Your task to perform on an android device: manage bookmarks in the chrome app Image 0: 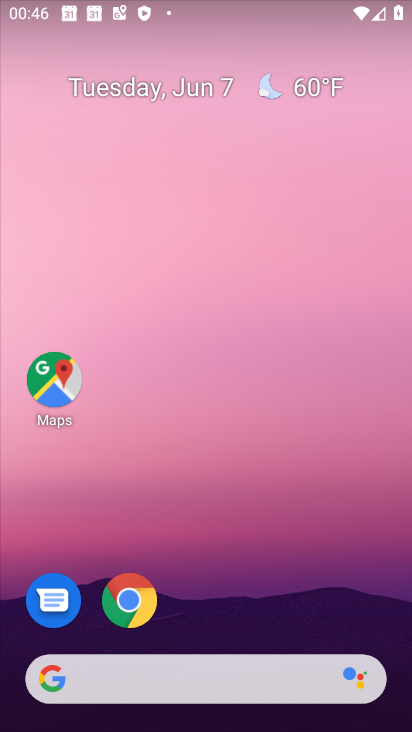
Step 0: click (133, 602)
Your task to perform on an android device: manage bookmarks in the chrome app Image 1: 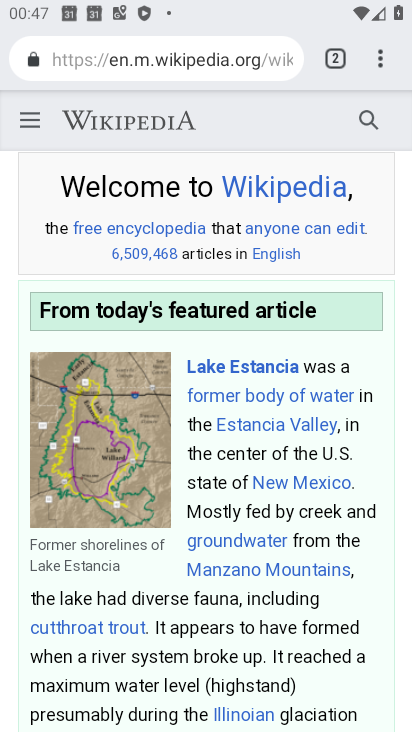
Step 1: click (378, 60)
Your task to perform on an android device: manage bookmarks in the chrome app Image 2: 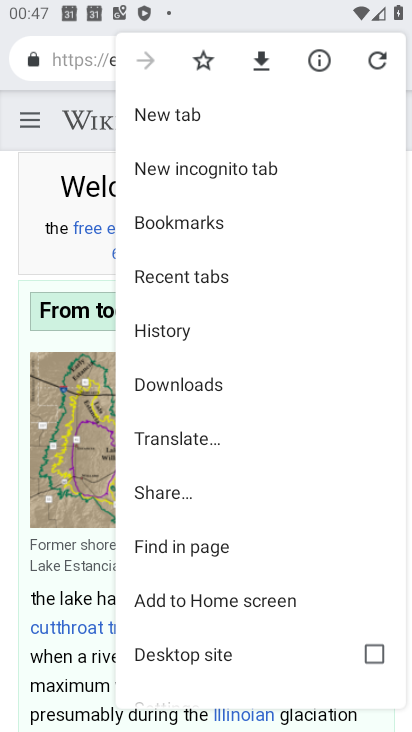
Step 2: click (166, 220)
Your task to perform on an android device: manage bookmarks in the chrome app Image 3: 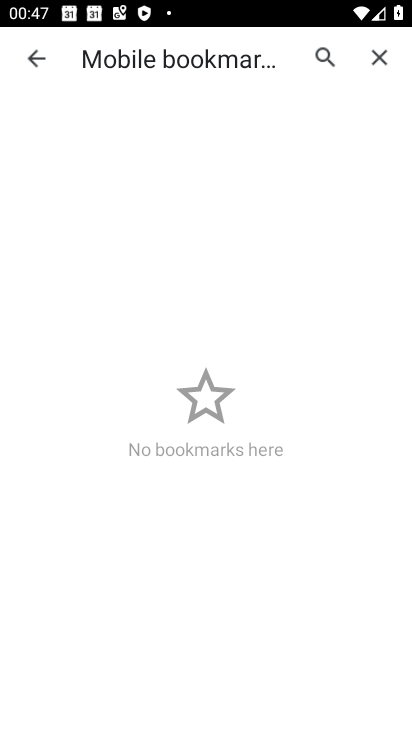
Step 3: task complete